Your task to perform on an android device: Open my contact list Image 0: 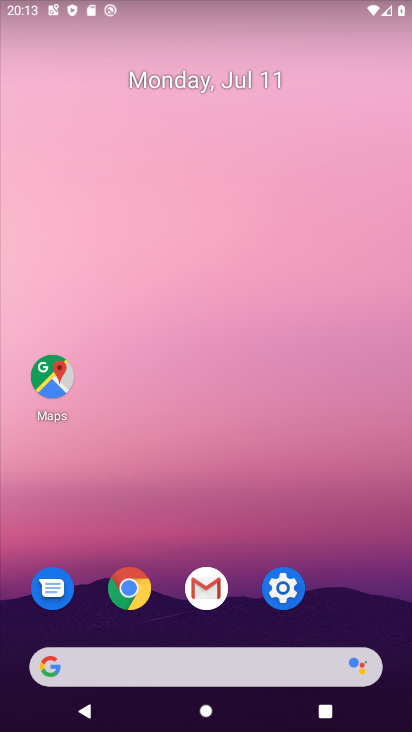
Step 0: drag from (243, 695) to (226, 300)
Your task to perform on an android device: Open my contact list Image 1: 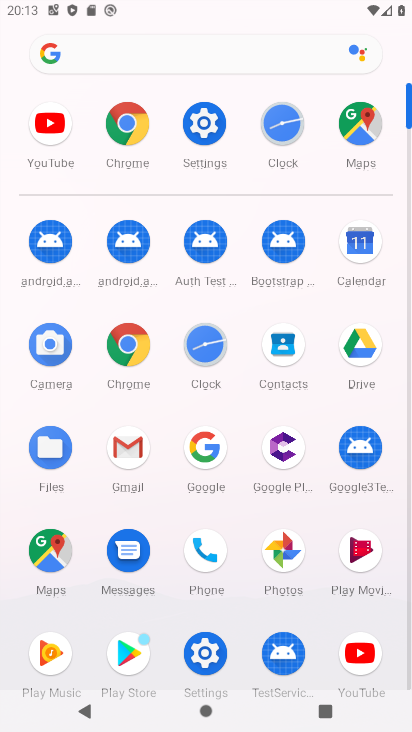
Step 1: click (272, 361)
Your task to perform on an android device: Open my contact list Image 2: 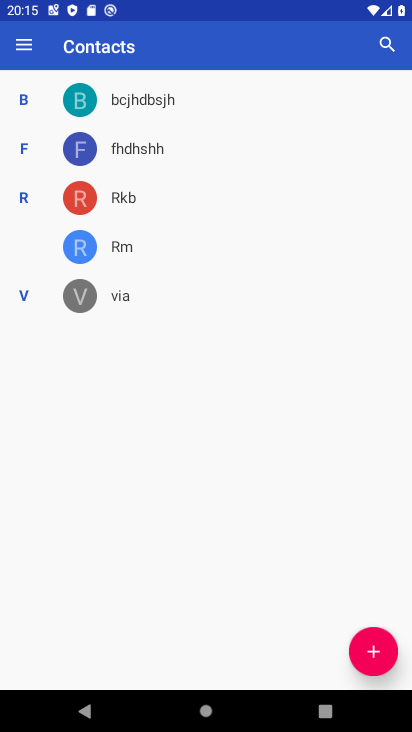
Step 2: task complete